Your task to perform on an android device: change the clock display to show seconds Image 0: 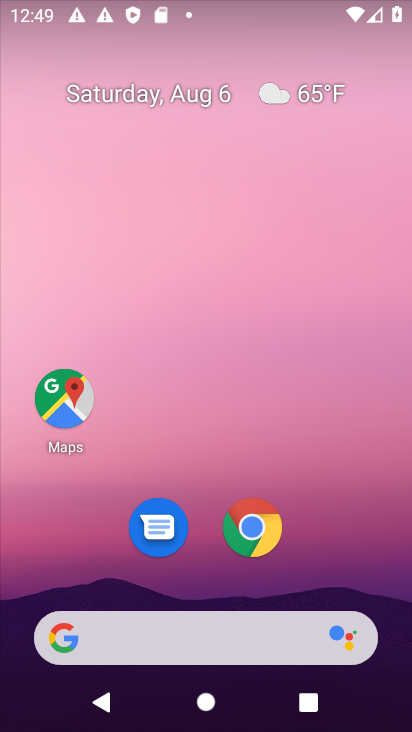
Step 0: drag from (239, 580) to (241, 159)
Your task to perform on an android device: change the clock display to show seconds Image 1: 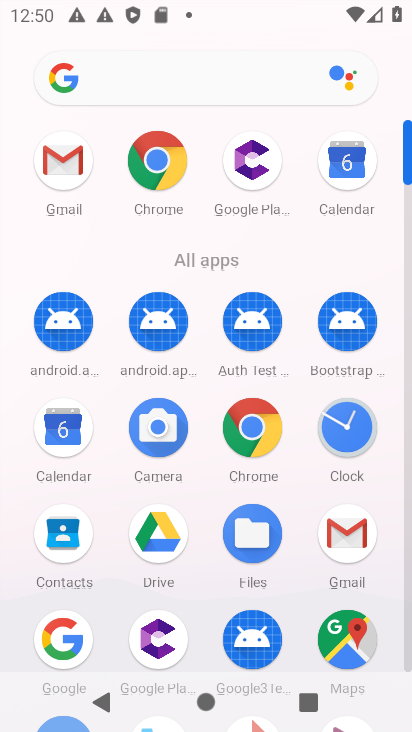
Step 1: press home button
Your task to perform on an android device: change the clock display to show seconds Image 2: 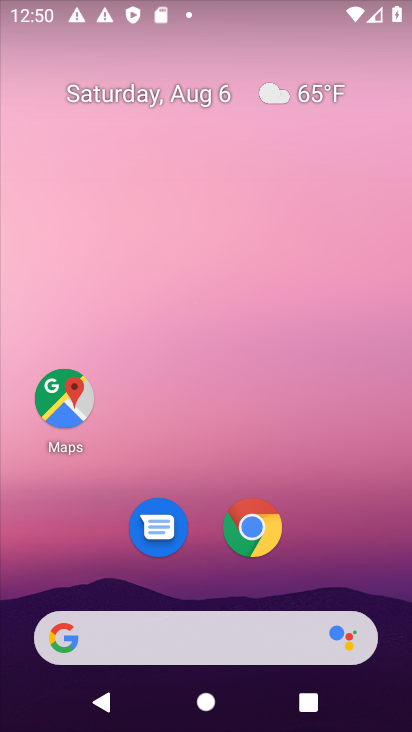
Step 2: drag from (217, 664) to (161, 190)
Your task to perform on an android device: change the clock display to show seconds Image 3: 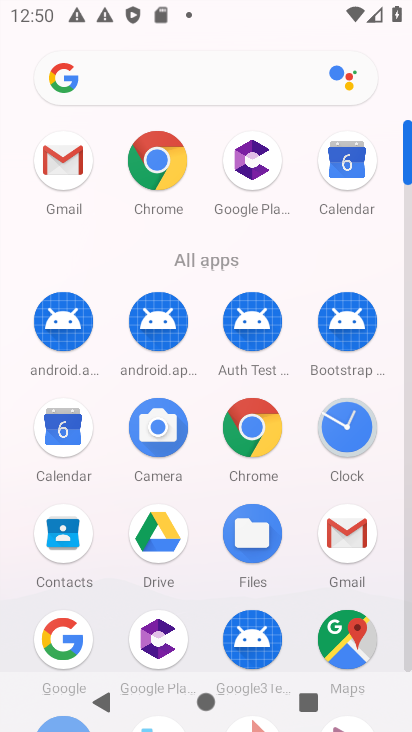
Step 3: click (342, 433)
Your task to perform on an android device: change the clock display to show seconds Image 4: 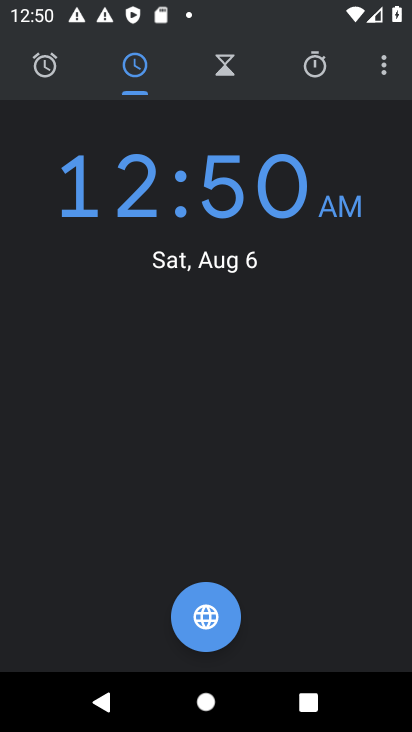
Step 4: click (385, 74)
Your task to perform on an android device: change the clock display to show seconds Image 5: 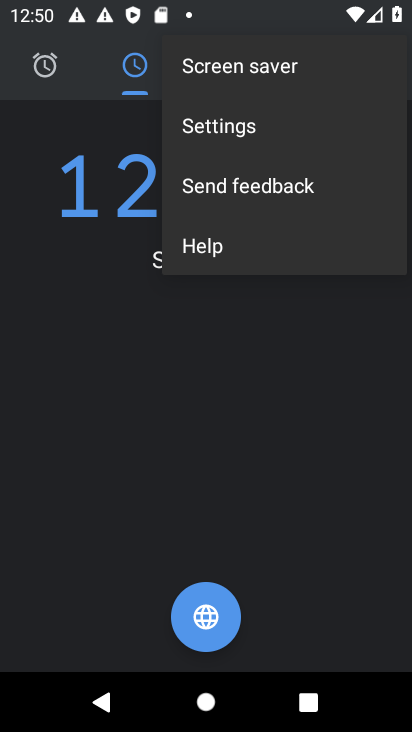
Step 5: click (245, 137)
Your task to perform on an android device: change the clock display to show seconds Image 6: 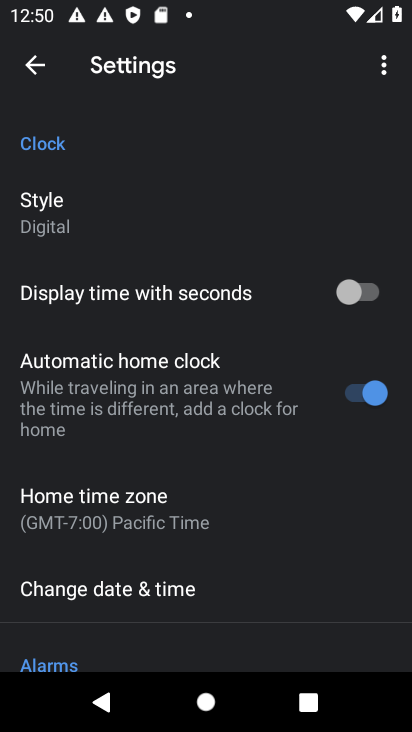
Step 6: click (354, 306)
Your task to perform on an android device: change the clock display to show seconds Image 7: 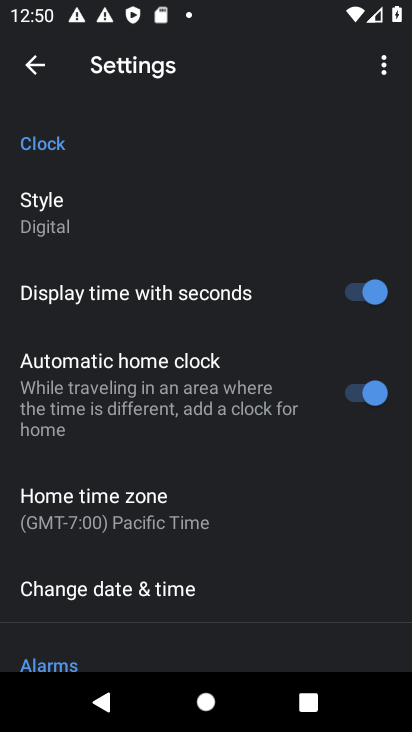
Step 7: task complete